Your task to perform on an android device: check out phone information Image 0: 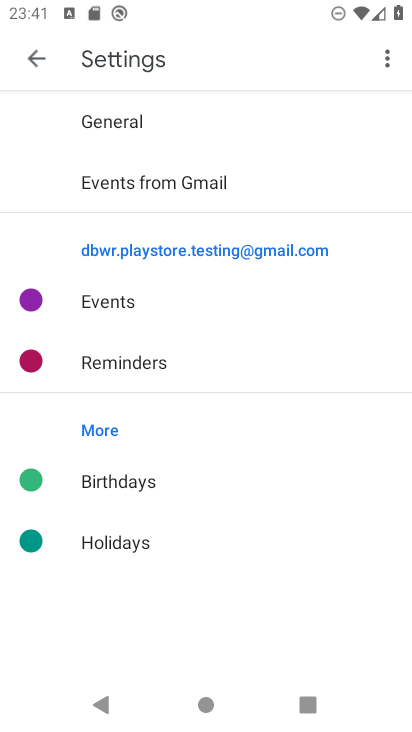
Step 0: press home button
Your task to perform on an android device: check out phone information Image 1: 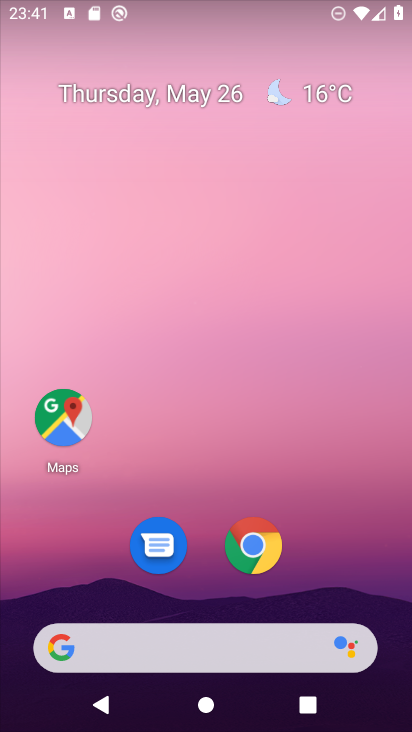
Step 1: drag from (264, 605) to (271, 186)
Your task to perform on an android device: check out phone information Image 2: 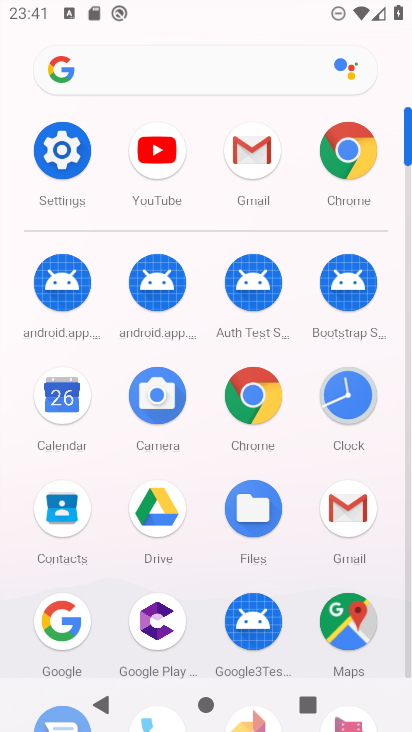
Step 2: click (46, 153)
Your task to perform on an android device: check out phone information Image 3: 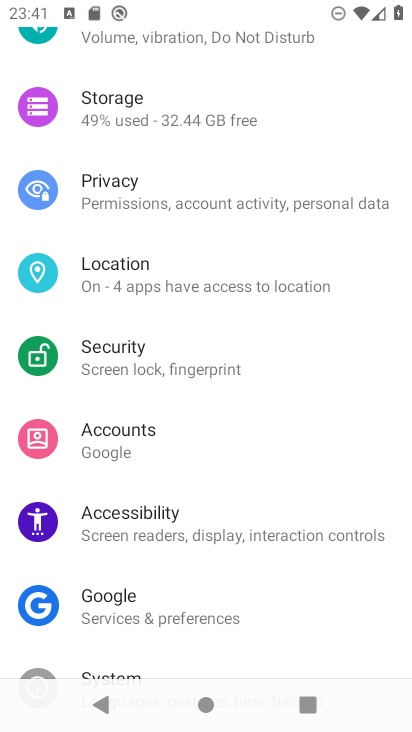
Step 3: drag from (351, 641) to (332, 110)
Your task to perform on an android device: check out phone information Image 4: 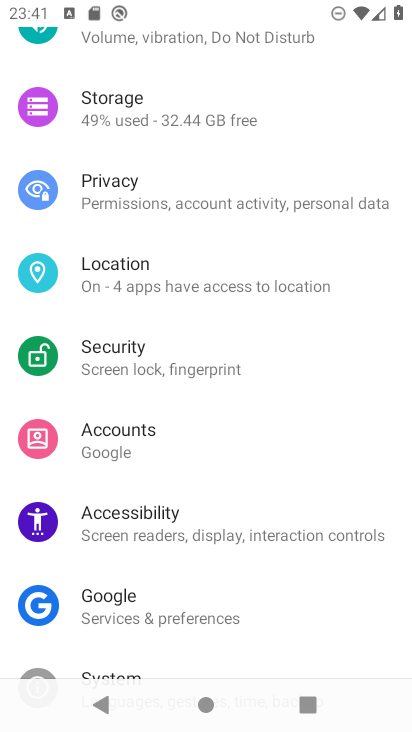
Step 4: drag from (371, 666) to (336, 292)
Your task to perform on an android device: check out phone information Image 5: 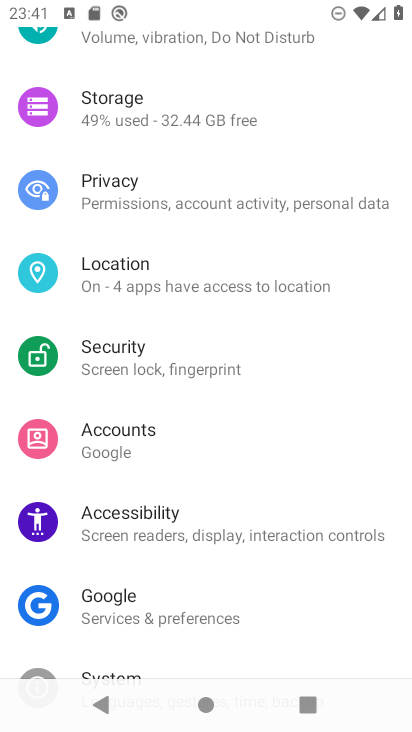
Step 5: drag from (303, 484) to (298, 1)
Your task to perform on an android device: check out phone information Image 6: 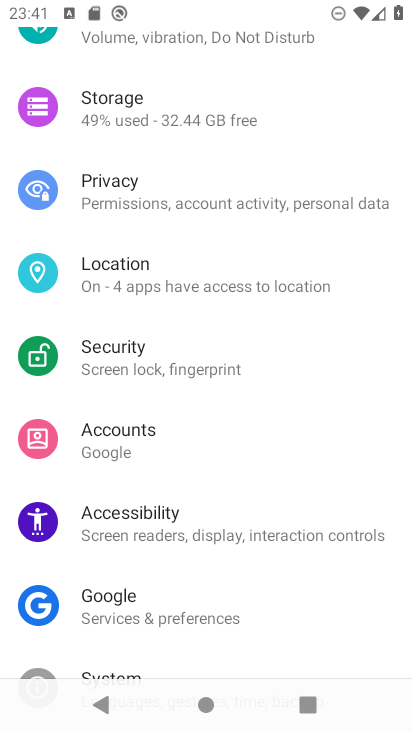
Step 6: drag from (314, 439) to (320, 45)
Your task to perform on an android device: check out phone information Image 7: 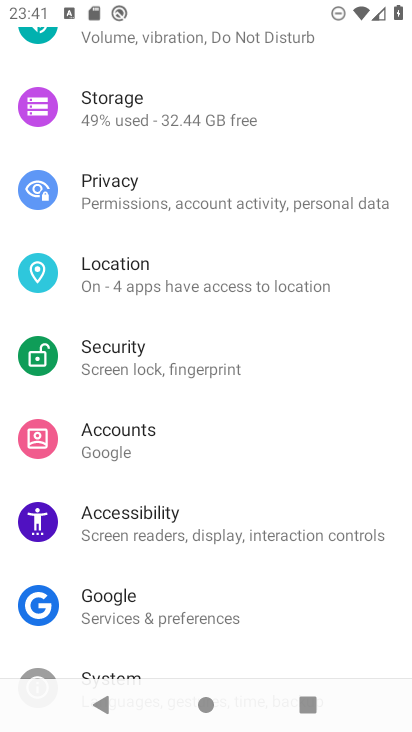
Step 7: drag from (334, 612) to (332, 117)
Your task to perform on an android device: check out phone information Image 8: 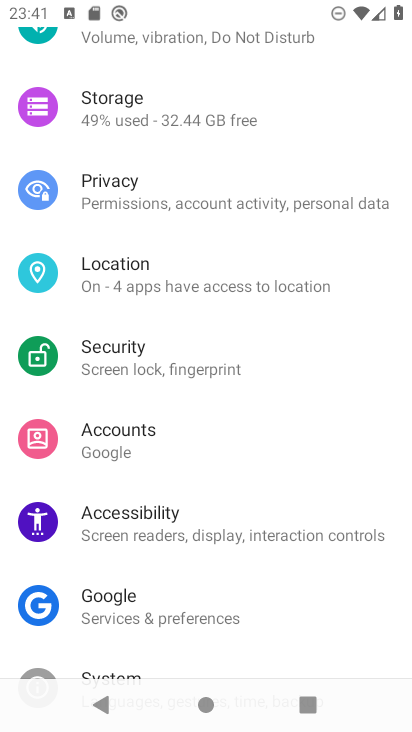
Step 8: drag from (84, 479) to (113, 39)
Your task to perform on an android device: check out phone information Image 9: 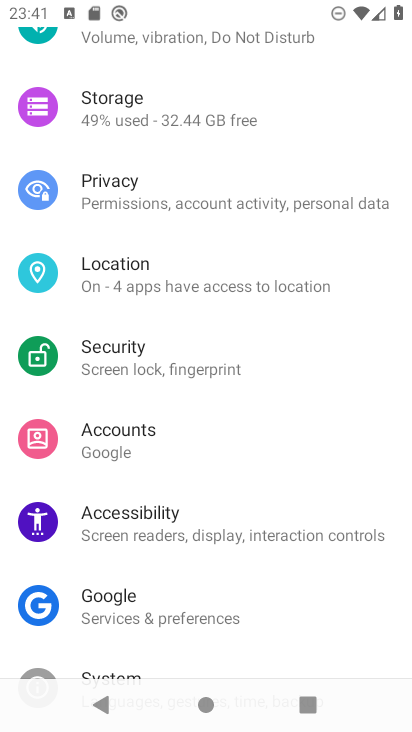
Step 9: drag from (360, 372) to (378, 13)
Your task to perform on an android device: check out phone information Image 10: 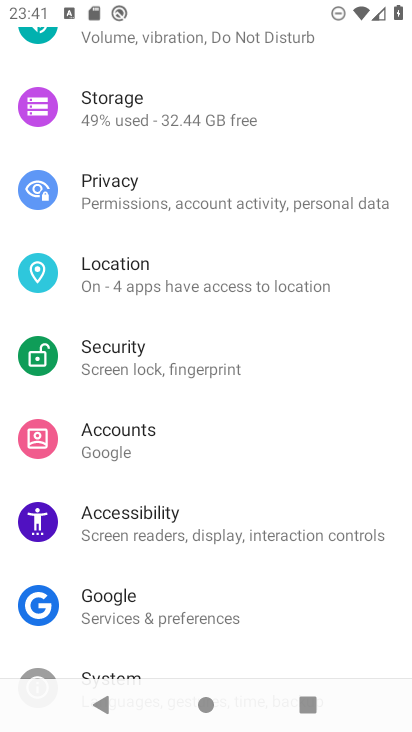
Step 10: drag from (328, 649) to (285, 20)
Your task to perform on an android device: check out phone information Image 11: 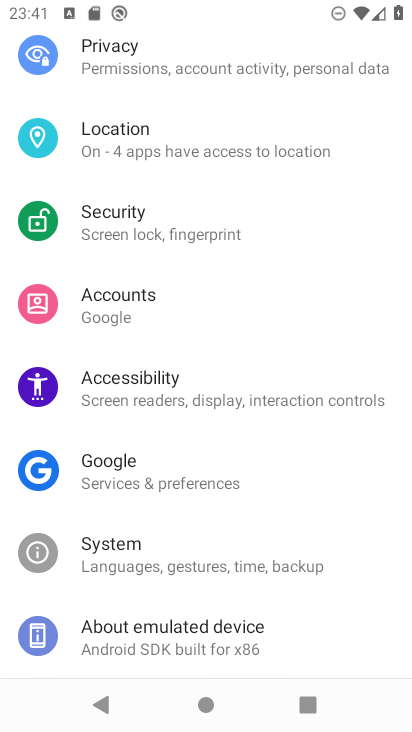
Step 11: drag from (272, 631) to (240, 164)
Your task to perform on an android device: check out phone information Image 12: 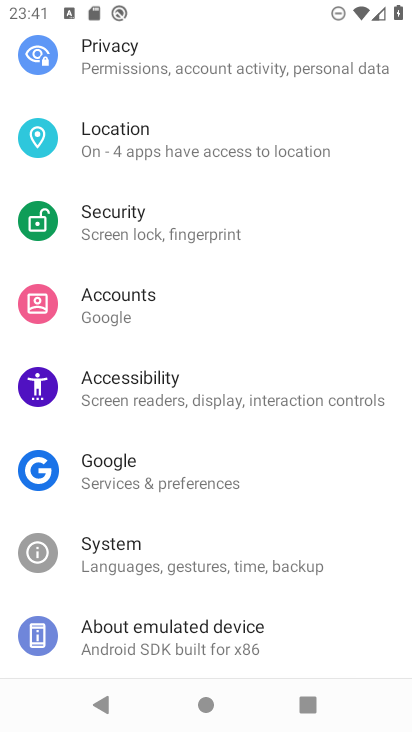
Step 12: click (159, 647)
Your task to perform on an android device: check out phone information Image 13: 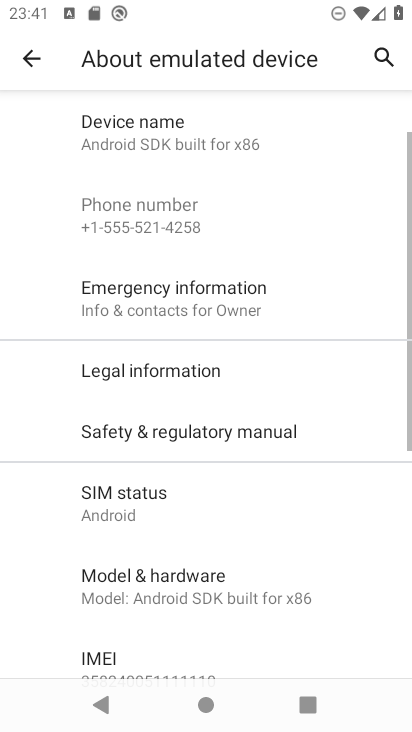
Step 13: click (31, 61)
Your task to perform on an android device: check out phone information Image 14: 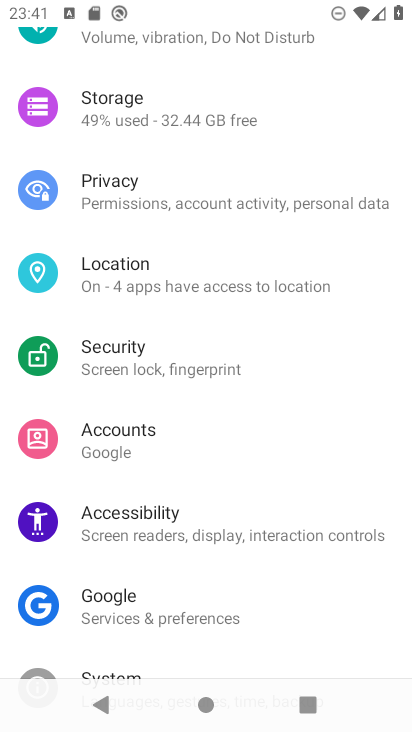
Step 14: task complete